Your task to perform on an android device: Open calendar and show me the fourth week of next month Image 0: 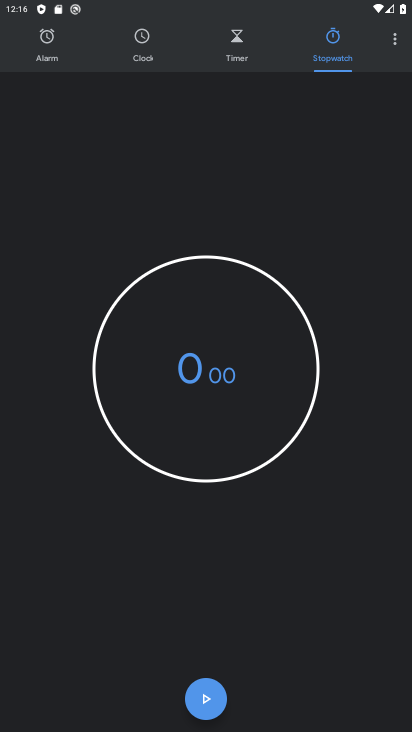
Step 0: press home button
Your task to perform on an android device: Open calendar and show me the fourth week of next month Image 1: 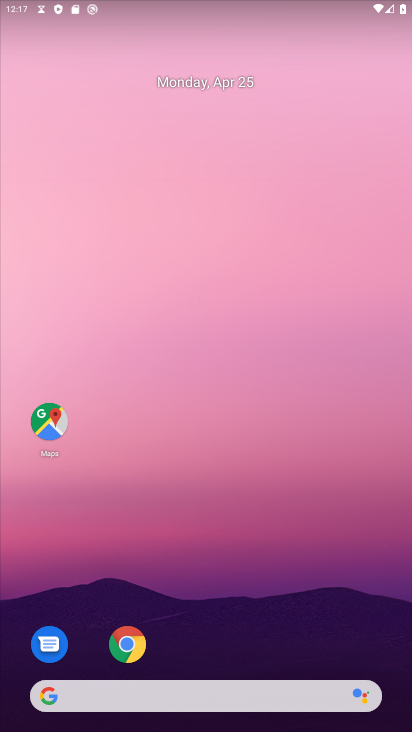
Step 1: drag from (351, 610) to (377, 65)
Your task to perform on an android device: Open calendar and show me the fourth week of next month Image 2: 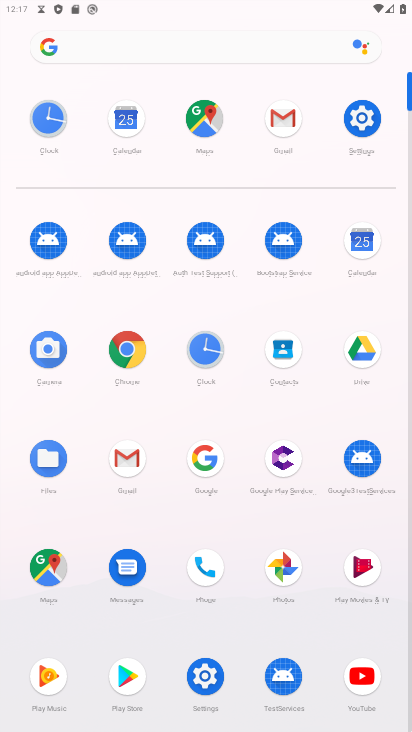
Step 2: click (362, 248)
Your task to perform on an android device: Open calendar and show me the fourth week of next month Image 3: 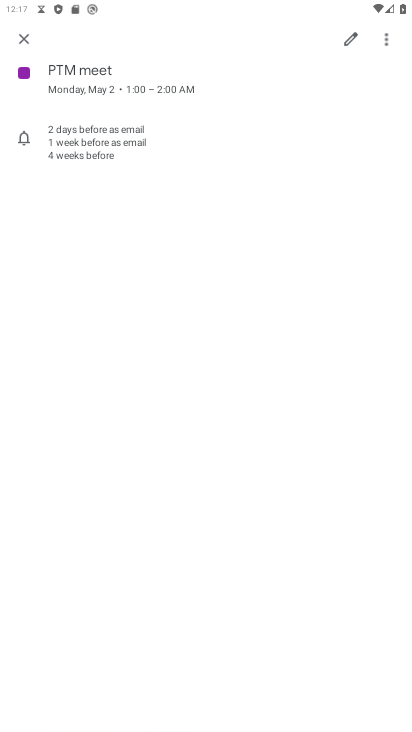
Step 3: click (30, 42)
Your task to perform on an android device: Open calendar and show me the fourth week of next month Image 4: 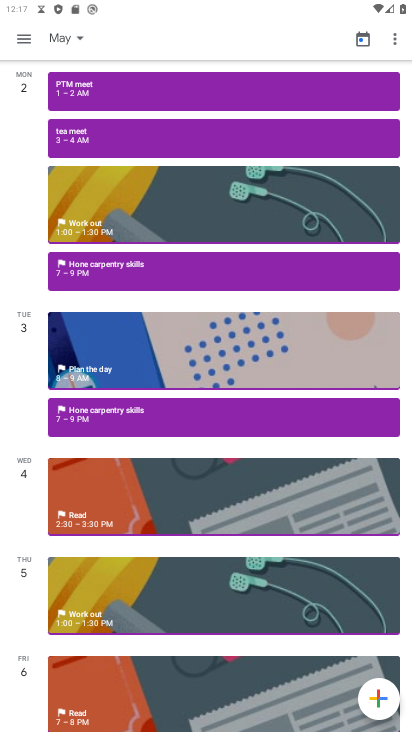
Step 4: click (27, 41)
Your task to perform on an android device: Open calendar and show me the fourth week of next month Image 5: 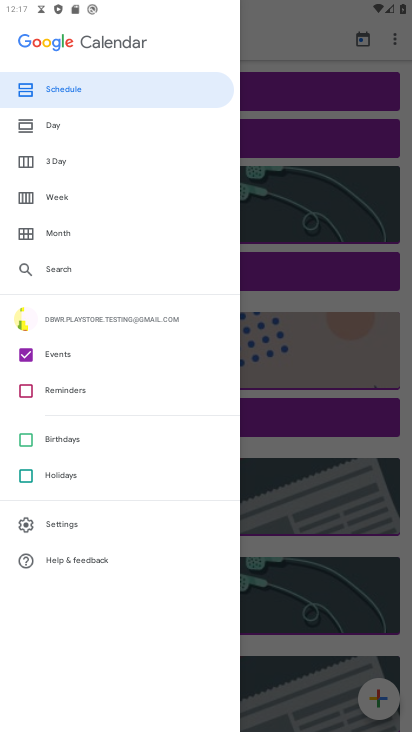
Step 5: click (57, 201)
Your task to perform on an android device: Open calendar and show me the fourth week of next month Image 6: 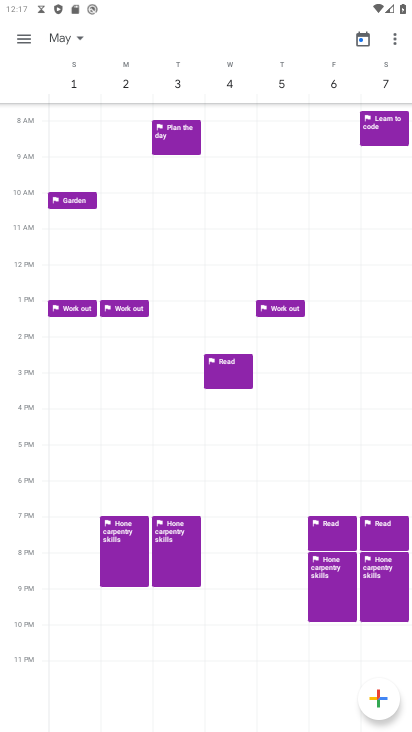
Step 6: task complete